Your task to perform on an android device: Open privacy settings Image 0: 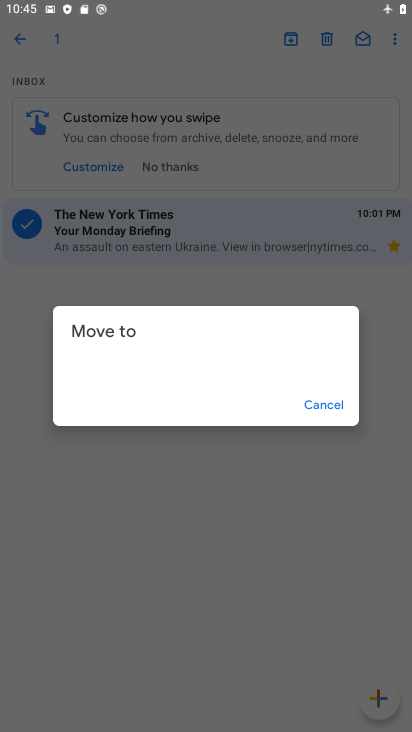
Step 0: press home button
Your task to perform on an android device: Open privacy settings Image 1: 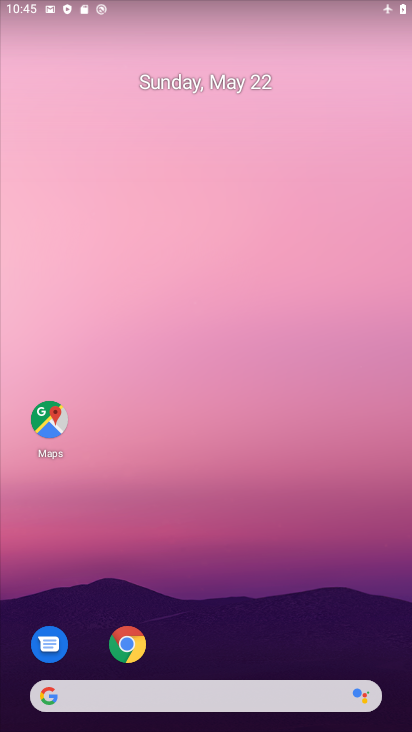
Step 1: drag from (222, 643) to (251, 109)
Your task to perform on an android device: Open privacy settings Image 2: 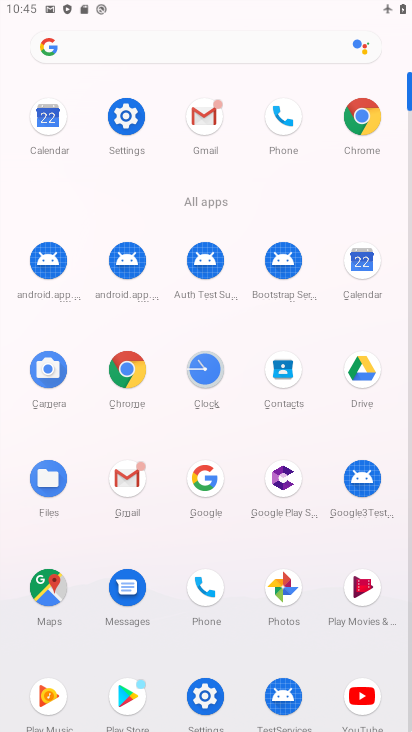
Step 2: click (127, 113)
Your task to perform on an android device: Open privacy settings Image 3: 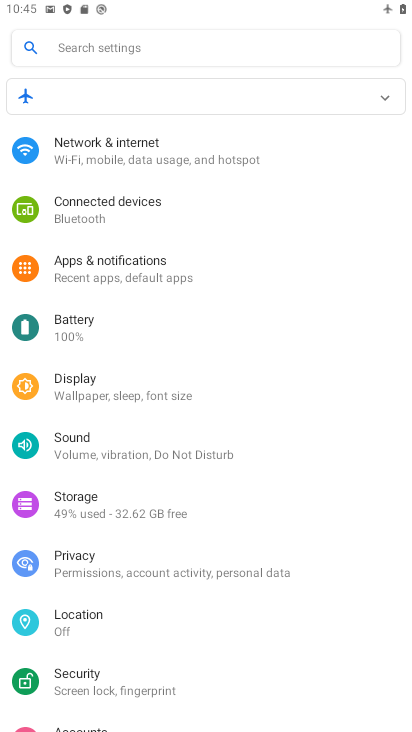
Step 3: click (119, 558)
Your task to perform on an android device: Open privacy settings Image 4: 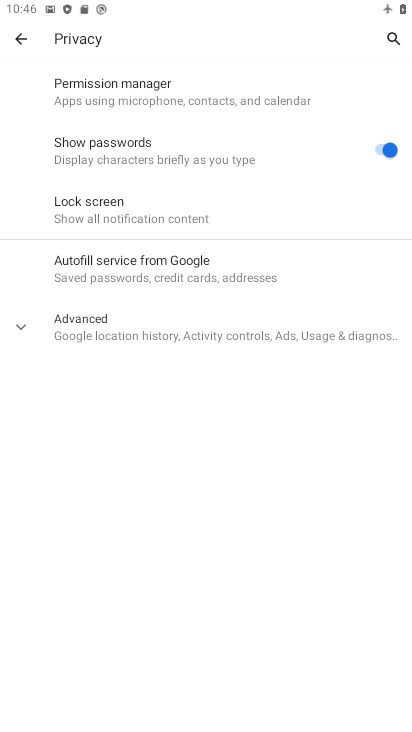
Step 4: click (22, 320)
Your task to perform on an android device: Open privacy settings Image 5: 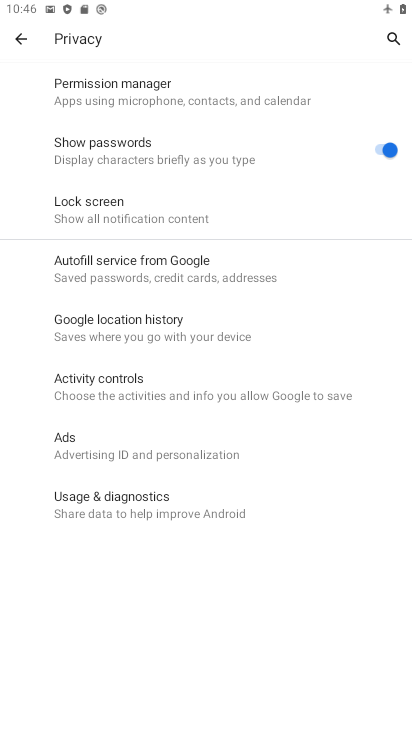
Step 5: task complete